Your task to perform on an android device: What is the news today? Image 0: 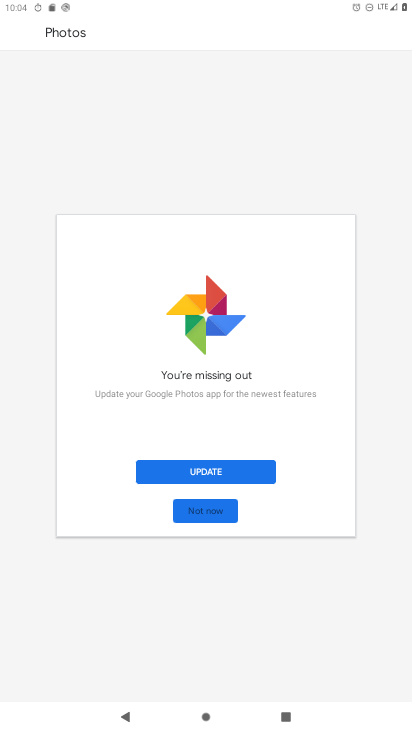
Step 0: press home button
Your task to perform on an android device: What is the news today? Image 1: 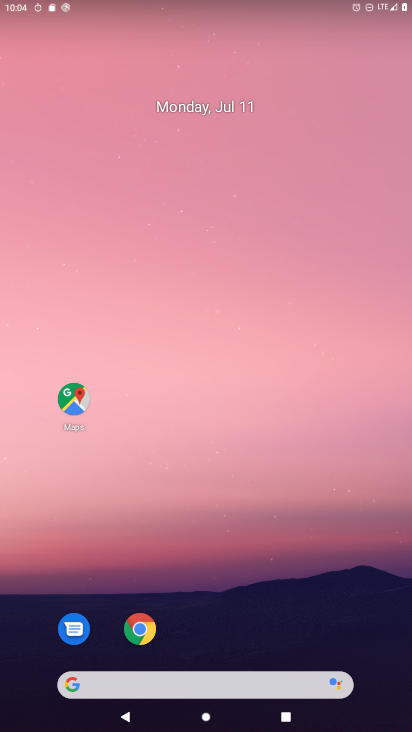
Step 1: click (104, 683)
Your task to perform on an android device: What is the news today? Image 2: 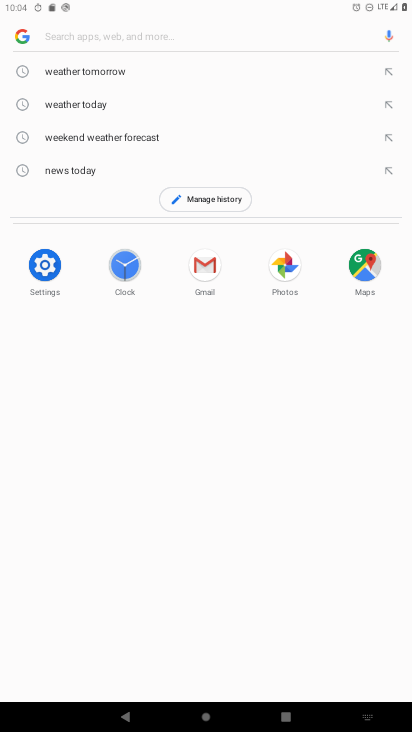
Step 2: click (29, 44)
Your task to perform on an android device: What is the news today? Image 3: 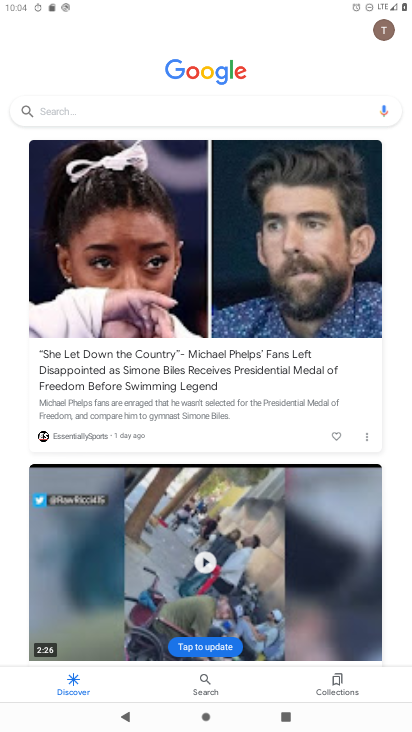
Step 3: task complete